Your task to perform on an android device: toggle translation in the chrome app Image 0: 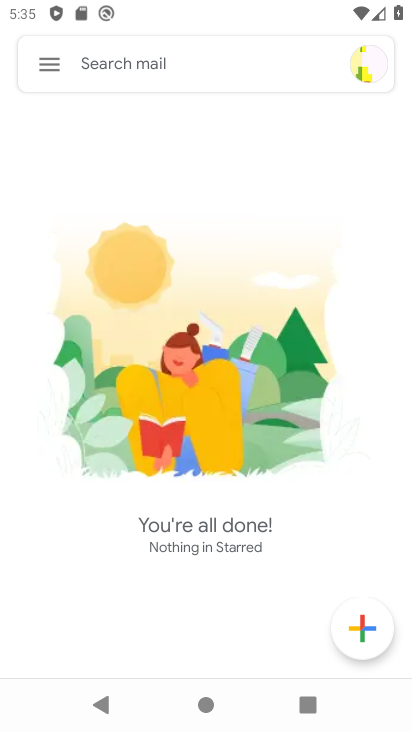
Step 0: press home button
Your task to perform on an android device: toggle translation in the chrome app Image 1: 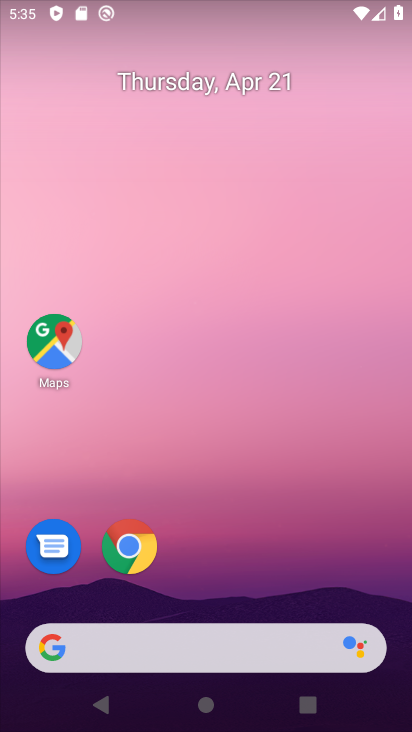
Step 1: click (98, 537)
Your task to perform on an android device: toggle translation in the chrome app Image 2: 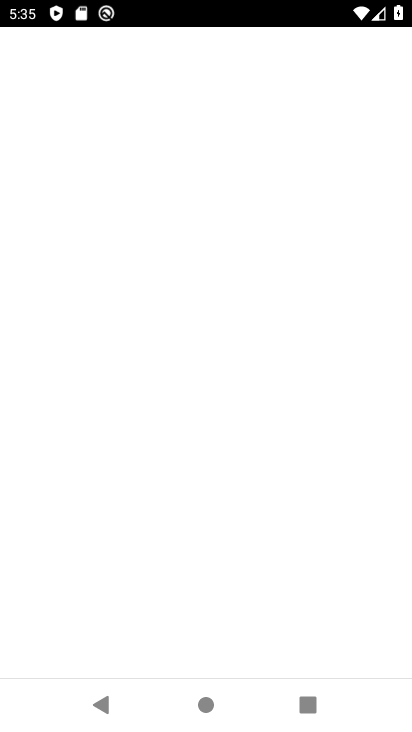
Step 2: click (125, 555)
Your task to perform on an android device: toggle translation in the chrome app Image 3: 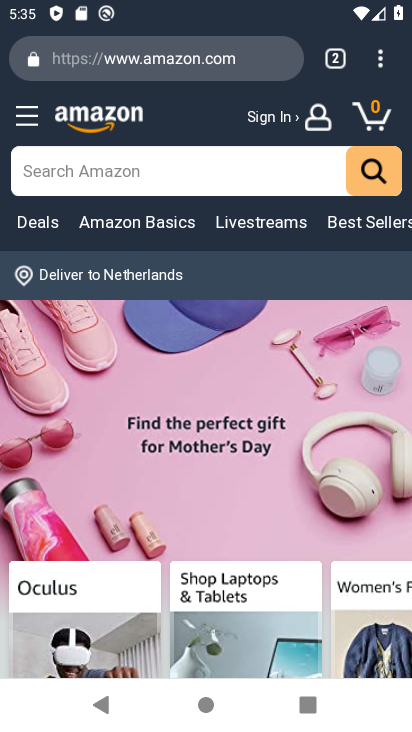
Step 3: click (390, 59)
Your task to perform on an android device: toggle translation in the chrome app Image 4: 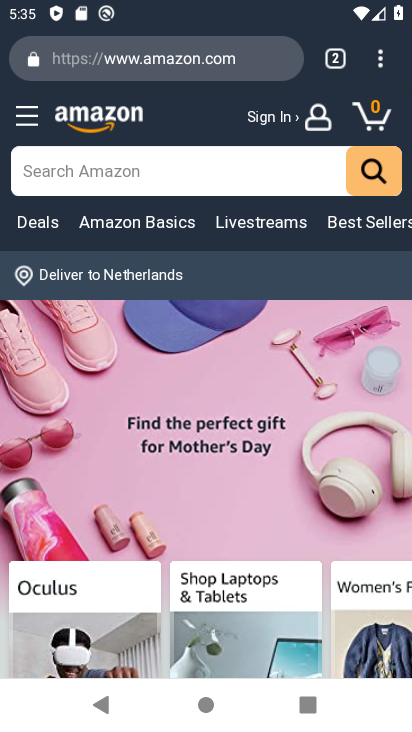
Step 4: click (378, 63)
Your task to perform on an android device: toggle translation in the chrome app Image 5: 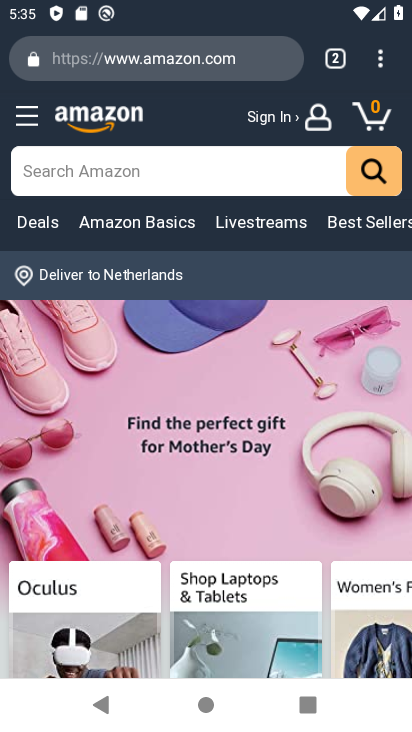
Step 5: click (376, 57)
Your task to perform on an android device: toggle translation in the chrome app Image 6: 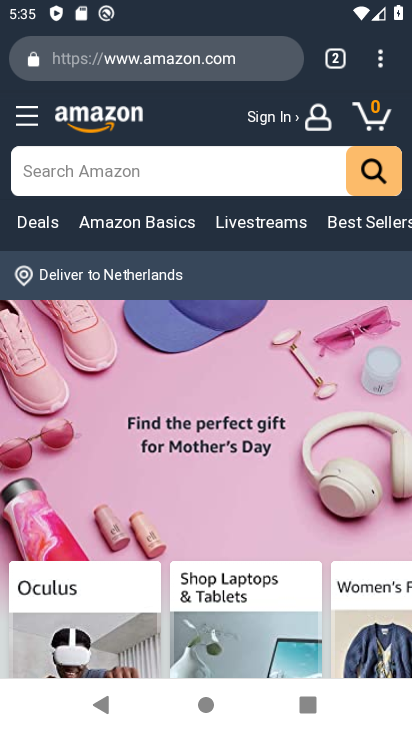
Step 6: click (383, 53)
Your task to perform on an android device: toggle translation in the chrome app Image 7: 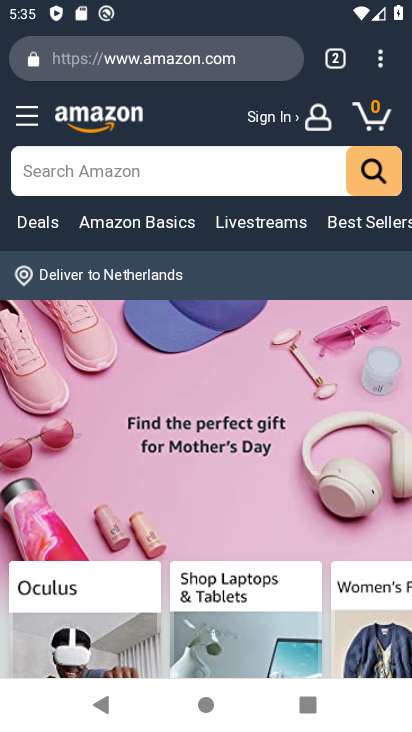
Step 7: click (379, 63)
Your task to perform on an android device: toggle translation in the chrome app Image 8: 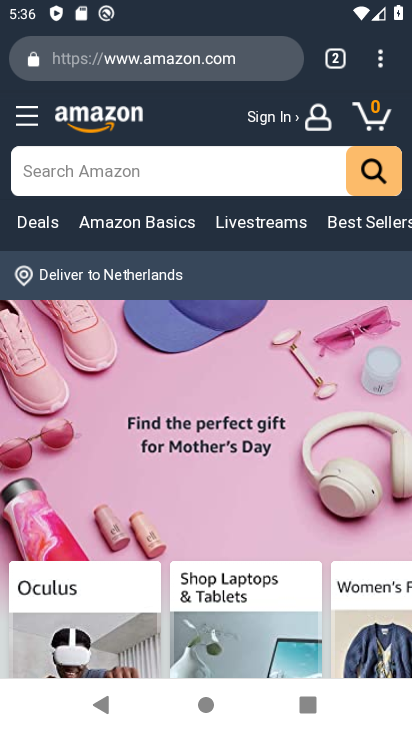
Step 8: click (379, 69)
Your task to perform on an android device: toggle translation in the chrome app Image 9: 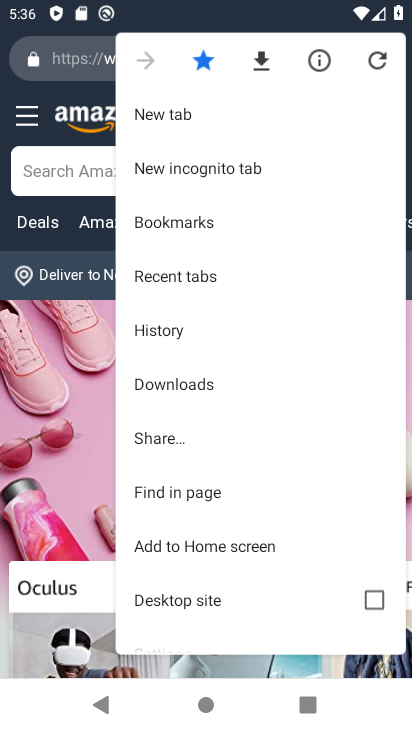
Step 9: drag from (219, 568) to (282, 73)
Your task to perform on an android device: toggle translation in the chrome app Image 10: 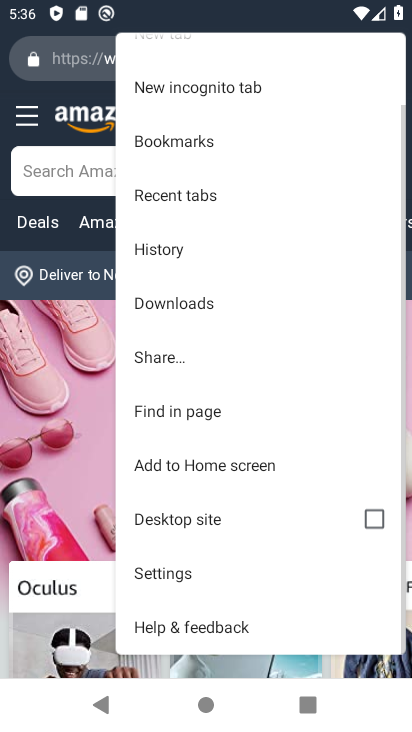
Step 10: click (177, 580)
Your task to perform on an android device: toggle translation in the chrome app Image 11: 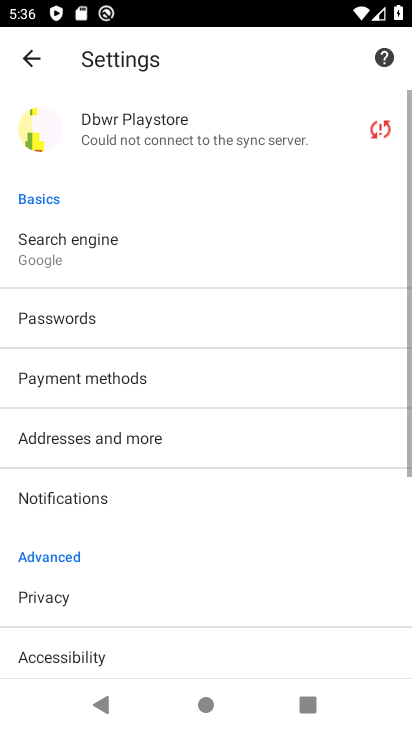
Step 11: drag from (154, 591) to (174, 104)
Your task to perform on an android device: toggle translation in the chrome app Image 12: 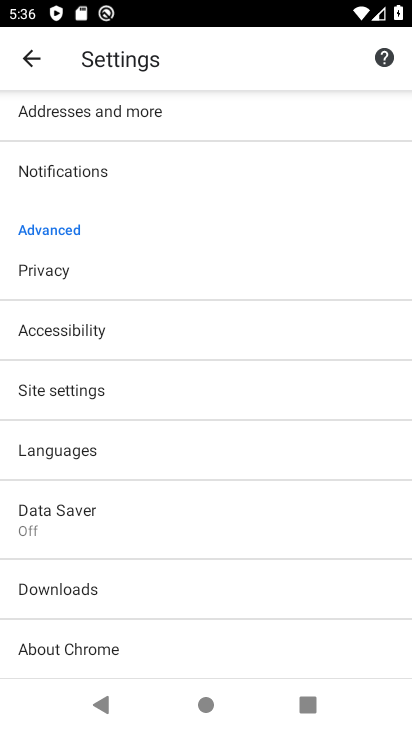
Step 12: click (56, 448)
Your task to perform on an android device: toggle translation in the chrome app Image 13: 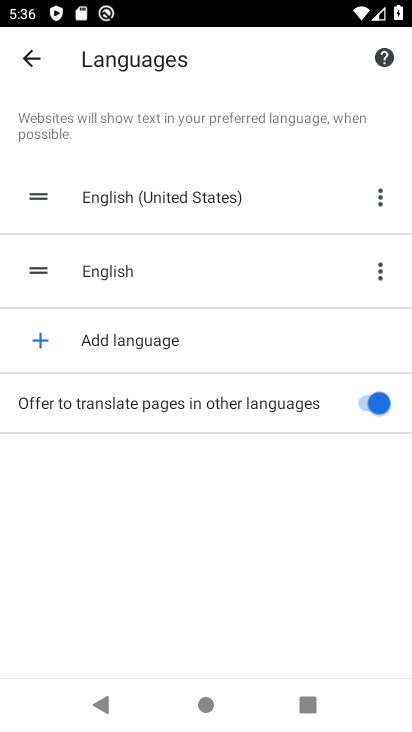
Step 13: click (371, 401)
Your task to perform on an android device: toggle translation in the chrome app Image 14: 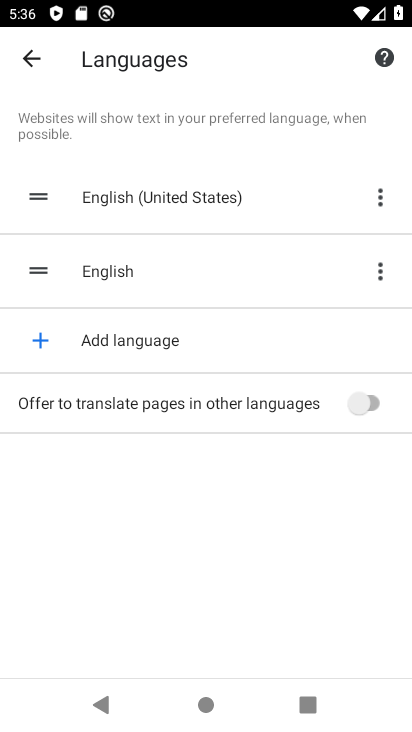
Step 14: task complete